Your task to perform on an android device: install app "Google News" Image 0: 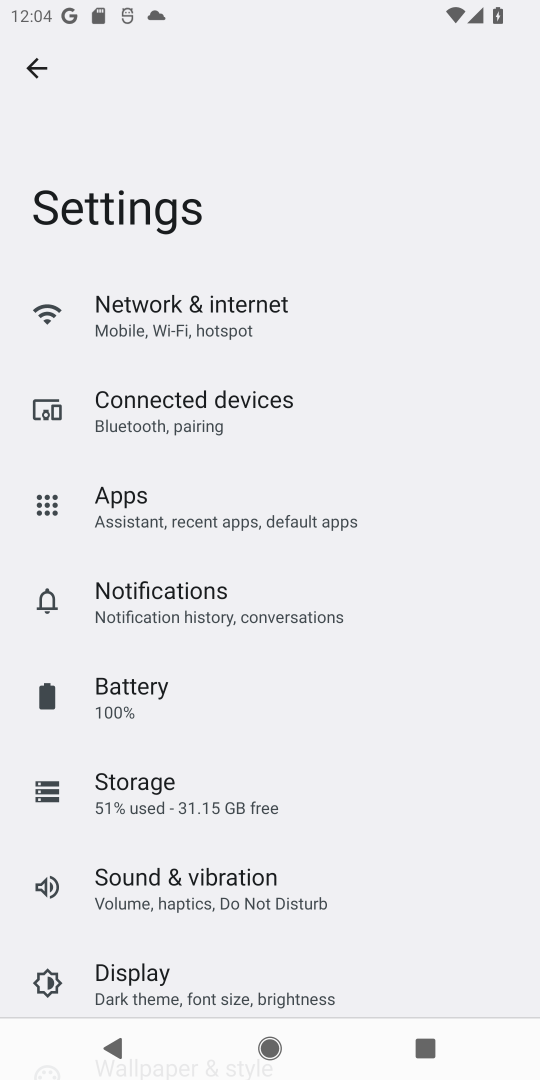
Step 0: press home button
Your task to perform on an android device: install app "Google News" Image 1: 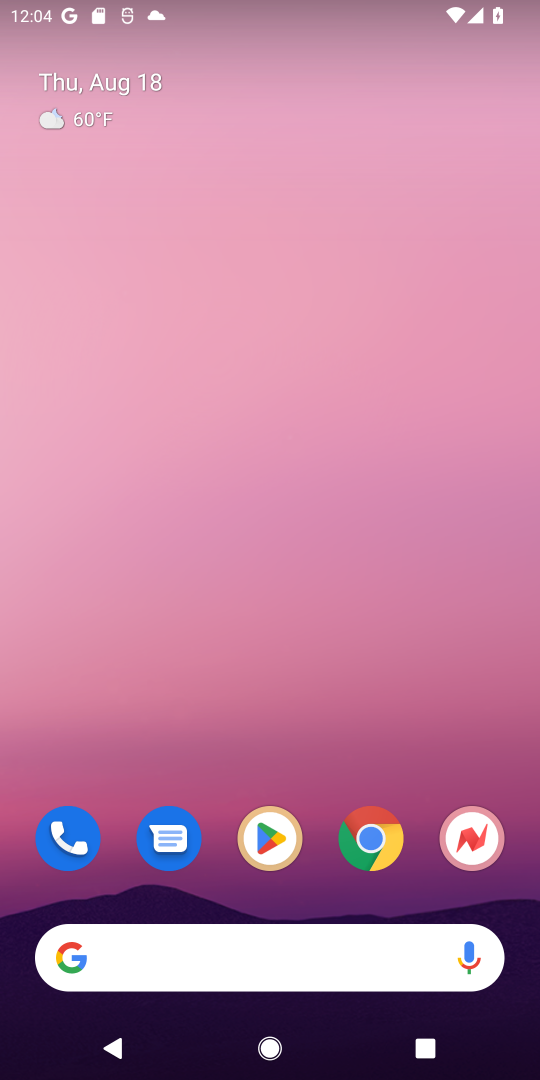
Step 1: click (275, 840)
Your task to perform on an android device: install app "Google News" Image 2: 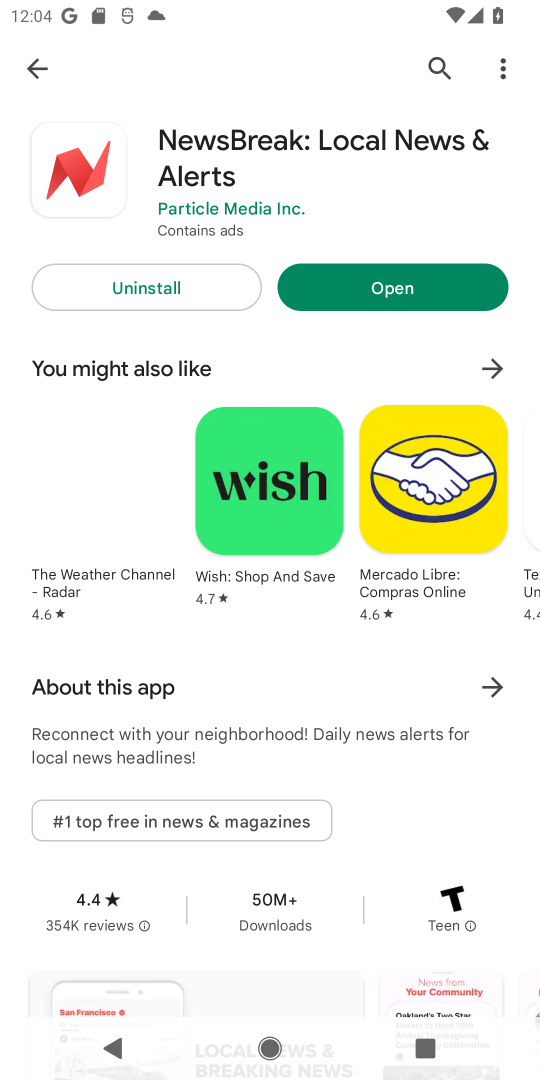
Step 2: click (271, 824)
Your task to perform on an android device: install app "Google News" Image 3: 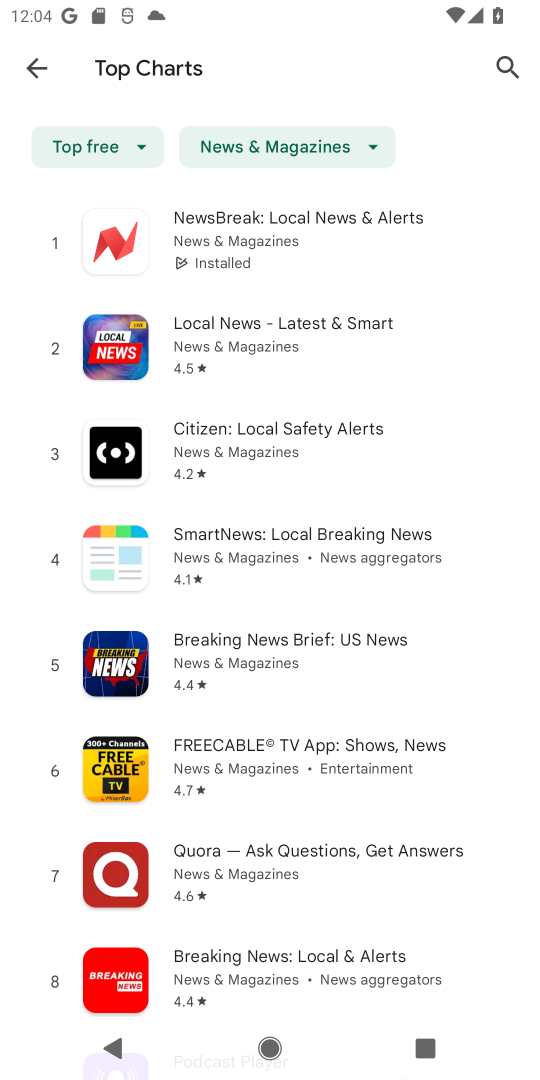
Step 3: click (505, 66)
Your task to perform on an android device: install app "Google News" Image 4: 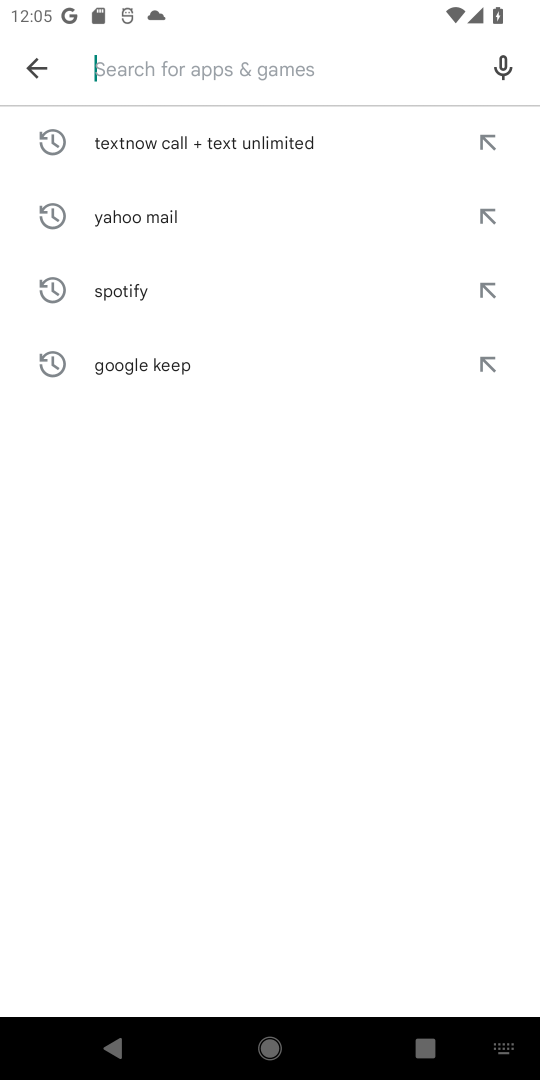
Step 4: type "Google News"
Your task to perform on an android device: install app "Google News" Image 5: 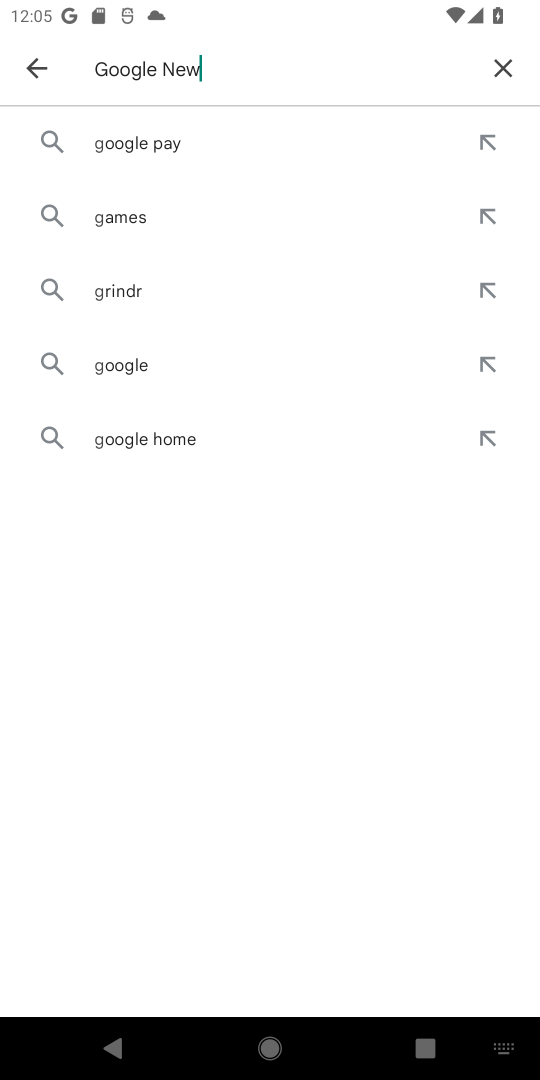
Step 5: type ""
Your task to perform on an android device: install app "Google News" Image 6: 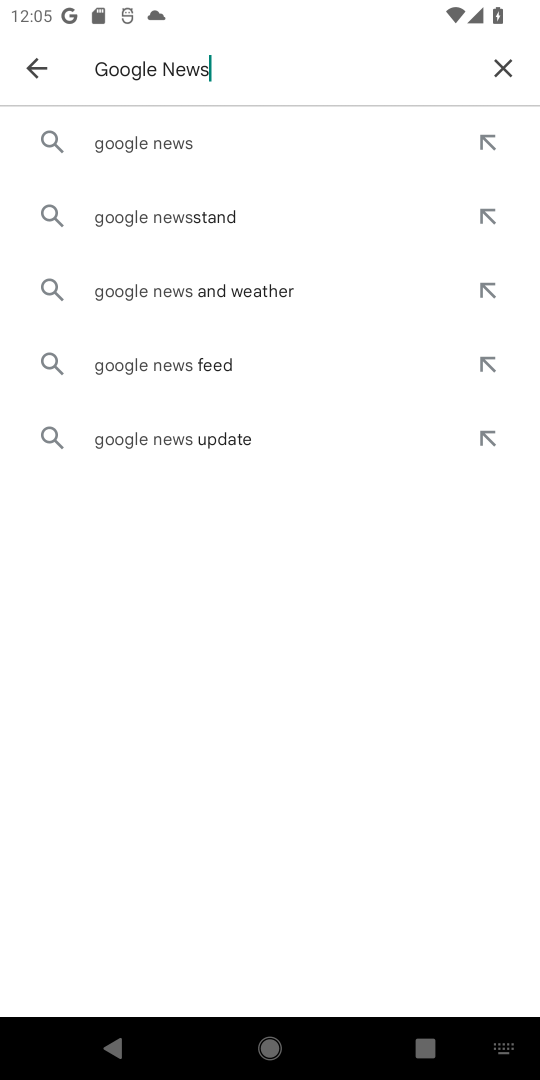
Step 6: click (182, 138)
Your task to perform on an android device: install app "Google News" Image 7: 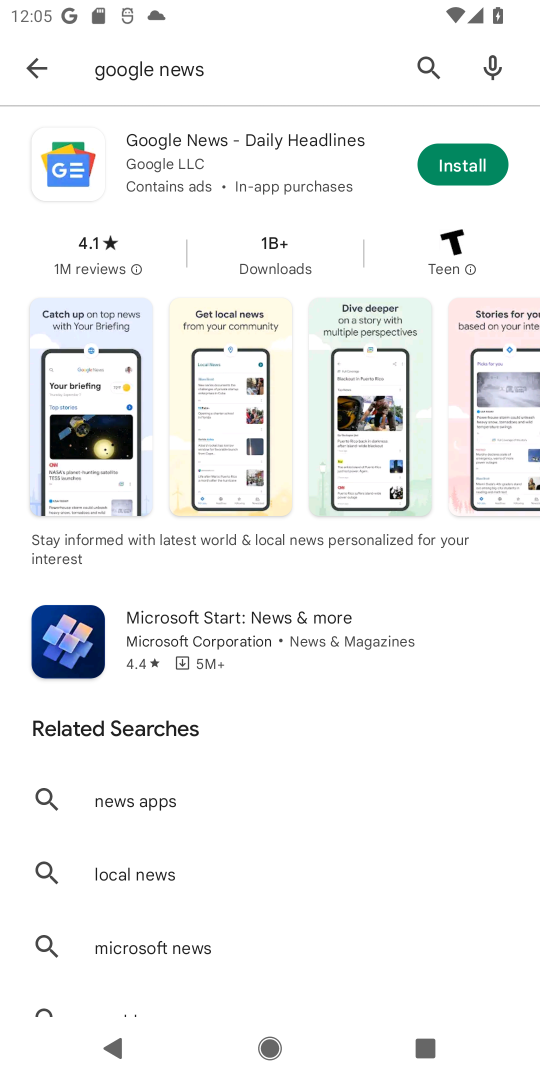
Step 7: click (452, 152)
Your task to perform on an android device: install app "Google News" Image 8: 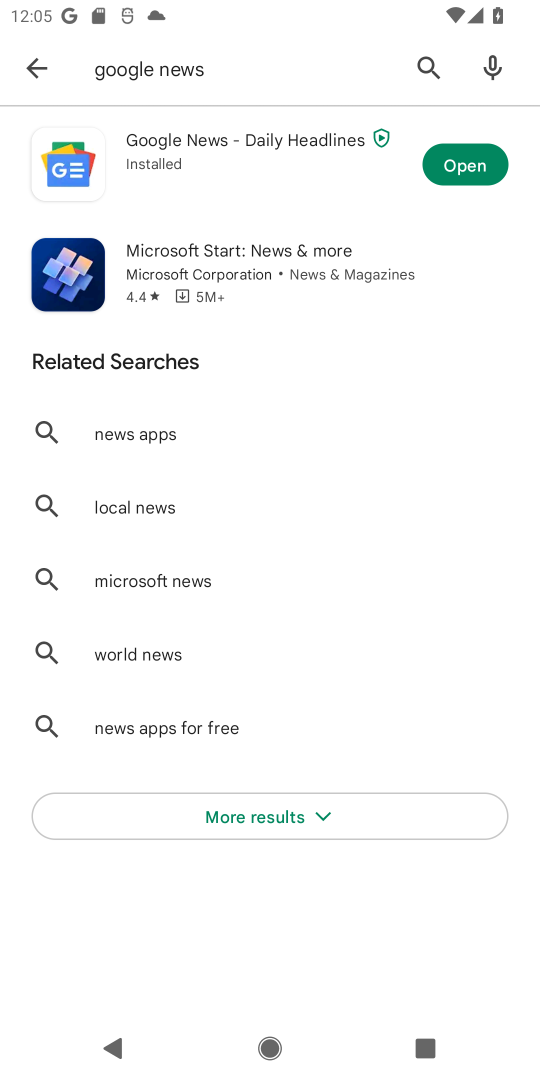
Step 8: task complete